Your task to perform on an android device: delete a single message in the gmail app Image 0: 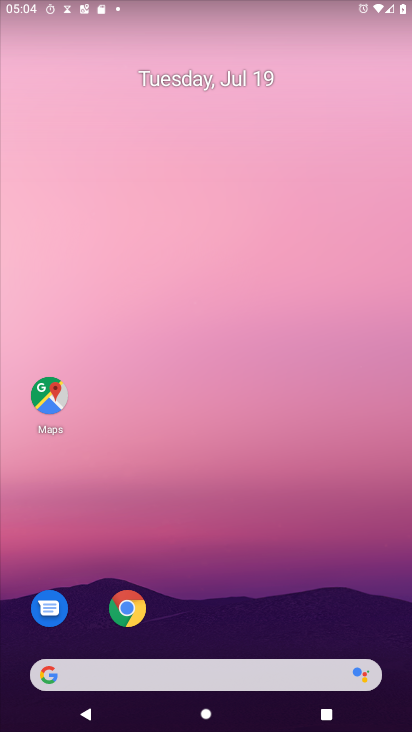
Step 0: drag from (228, 675) to (251, 65)
Your task to perform on an android device: delete a single message in the gmail app Image 1: 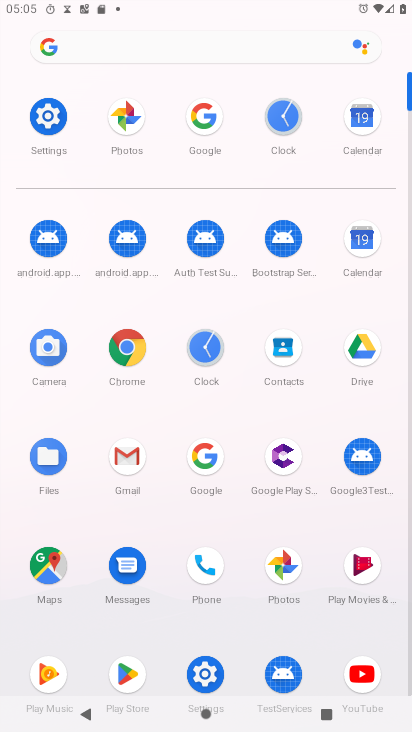
Step 1: click (127, 457)
Your task to perform on an android device: delete a single message in the gmail app Image 2: 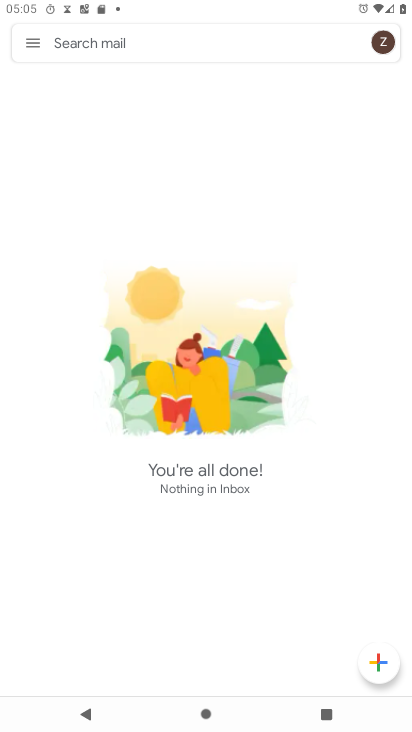
Step 2: click (32, 41)
Your task to perform on an android device: delete a single message in the gmail app Image 3: 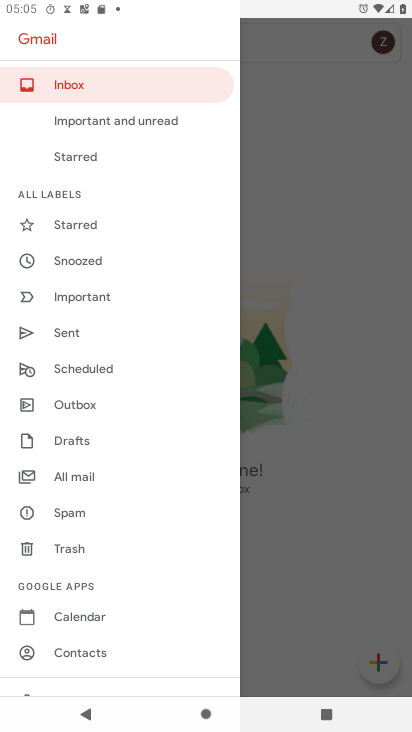
Step 3: drag from (115, 583) to (138, 272)
Your task to perform on an android device: delete a single message in the gmail app Image 4: 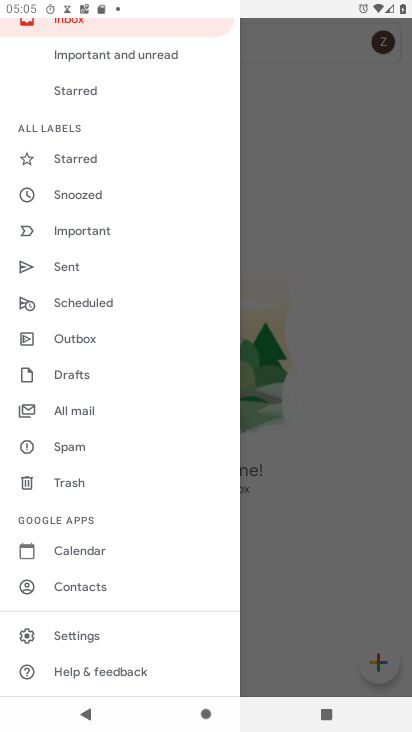
Step 4: click (80, 636)
Your task to perform on an android device: delete a single message in the gmail app Image 5: 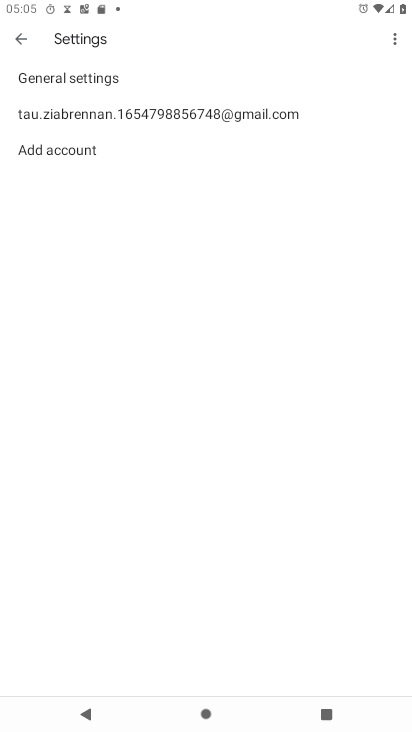
Step 5: click (164, 114)
Your task to perform on an android device: delete a single message in the gmail app Image 6: 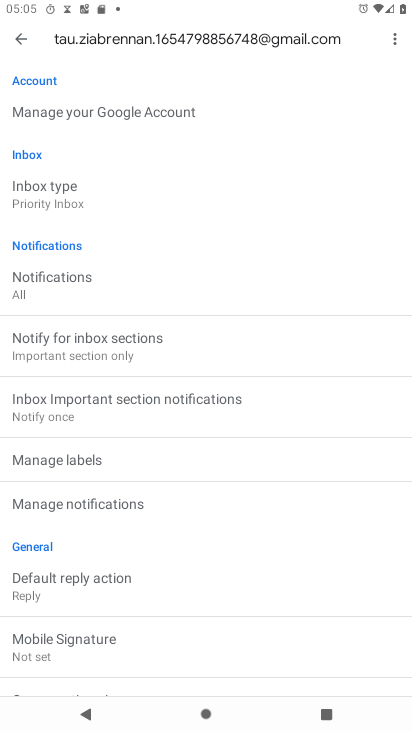
Step 6: press back button
Your task to perform on an android device: delete a single message in the gmail app Image 7: 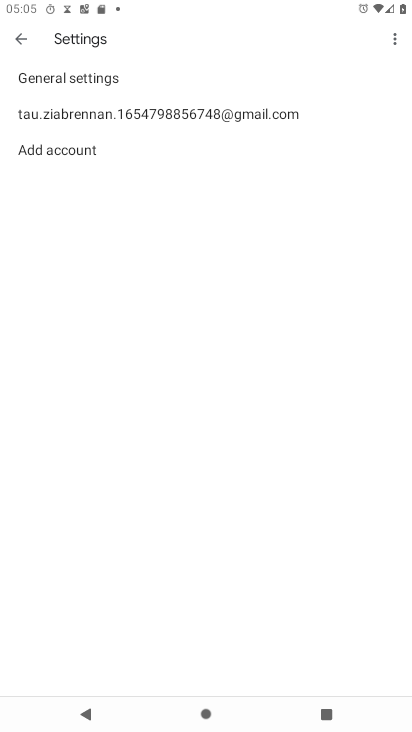
Step 7: press back button
Your task to perform on an android device: delete a single message in the gmail app Image 8: 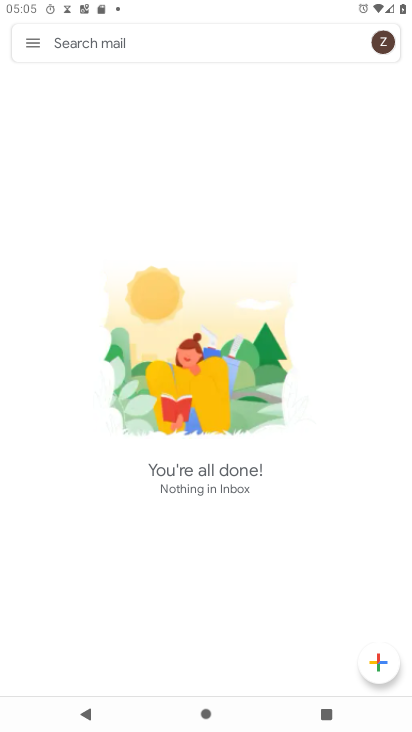
Step 8: click (37, 39)
Your task to perform on an android device: delete a single message in the gmail app Image 9: 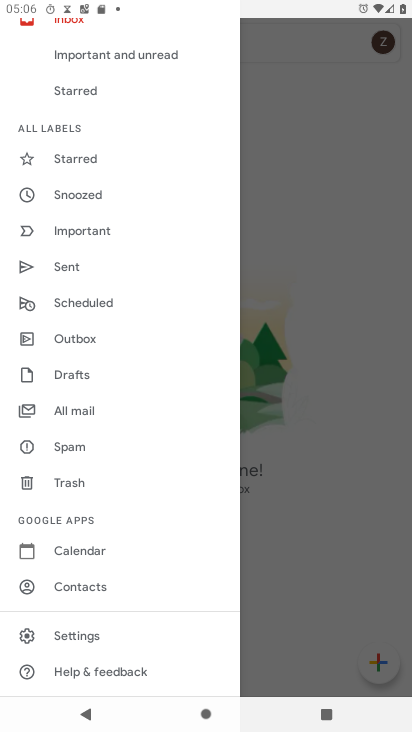
Step 9: drag from (117, 307) to (124, 523)
Your task to perform on an android device: delete a single message in the gmail app Image 10: 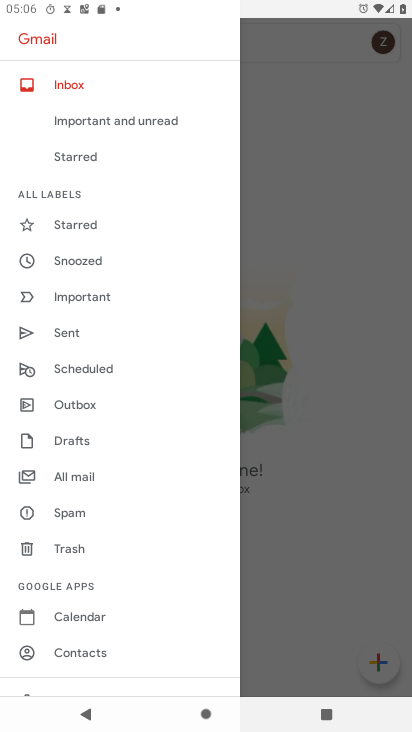
Step 10: click (77, 546)
Your task to perform on an android device: delete a single message in the gmail app Image 11: 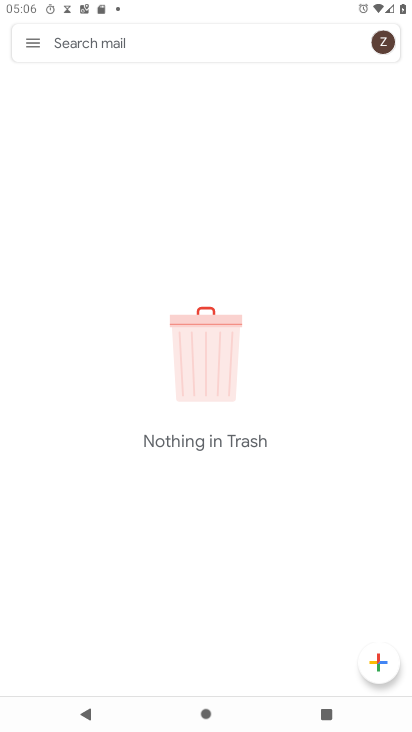
Step 11: press back button
Your task to perform on an android device: delete a single message in the gmail app Image 12: 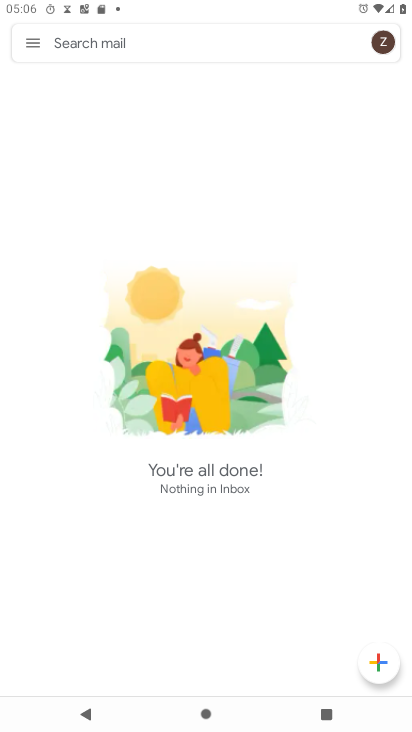
Step 12: click (34, 42)
Your task to perform on an android device: delete a single message in the gmail app Image 13: 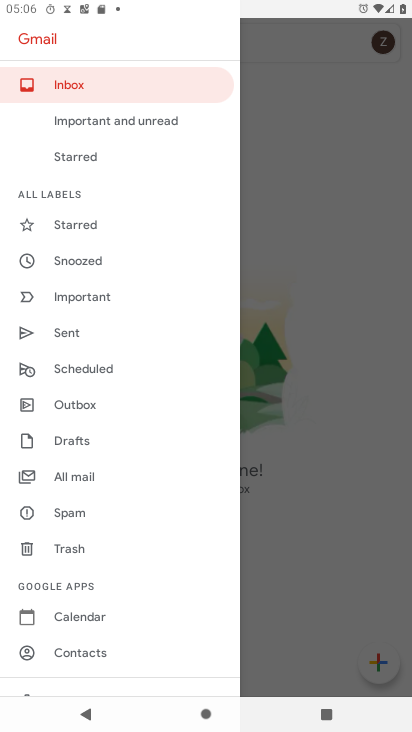
Step 13: click (84, 475)
Your task to perform on an android device: delete a single message in the gmail app Image 14: 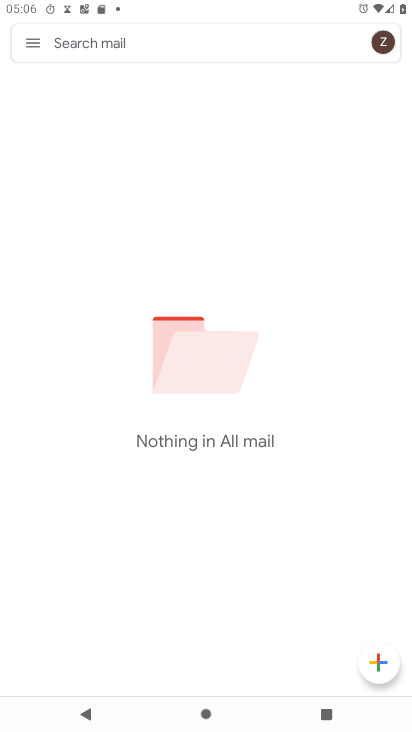
Step 14: task complete